Your task to perform on an android device: Open the Play Movies app and select the watchlist tab. Image 0: 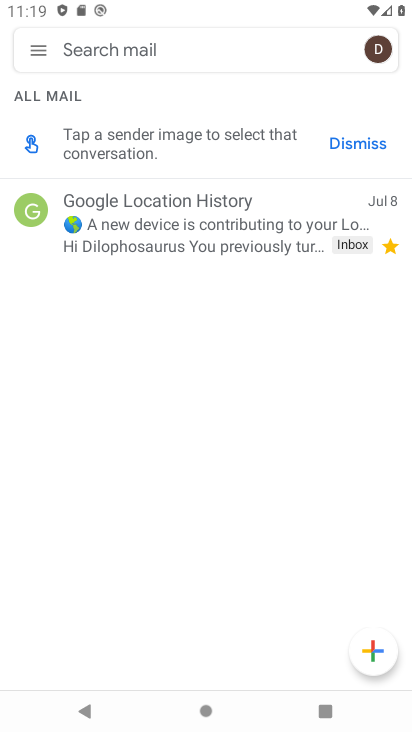
Step 0: press home button
Your task to perform on an android device: Open the Play Movies app and select the watchlist tab. Image 1: 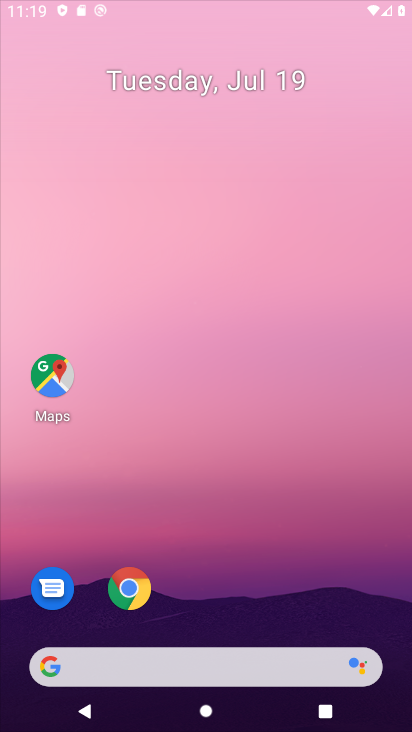
Step 1: drag from (394, 661) to (287, 28)
Your task to perform on an android device: Open the Play Movies app and select the watchlist tab. Image 2: 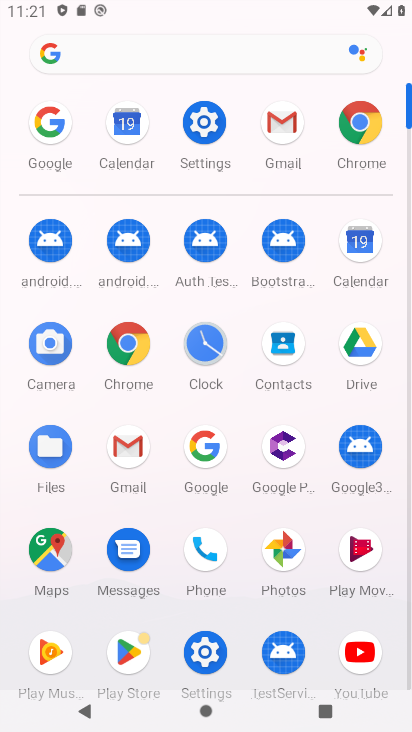
Step 2: click (372, 543)
Your task to perform on an android device: Open the Play Movies app and select the watchlist tab. Image 3: 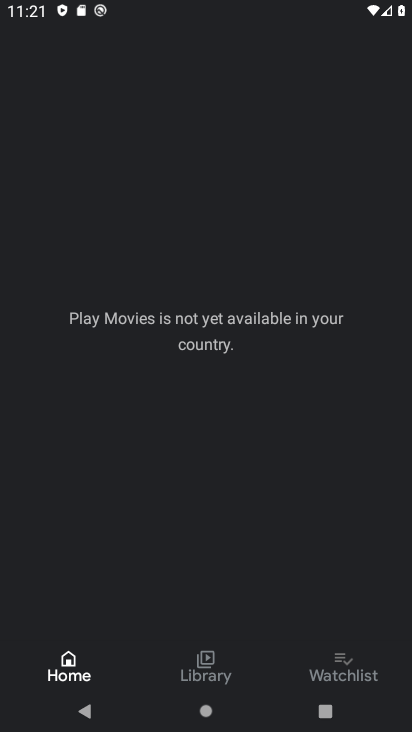
Step 3: click (341, 653)
Your task to perform on an android device: Open the Play Movies app and select the watchlist tab. Image 4: 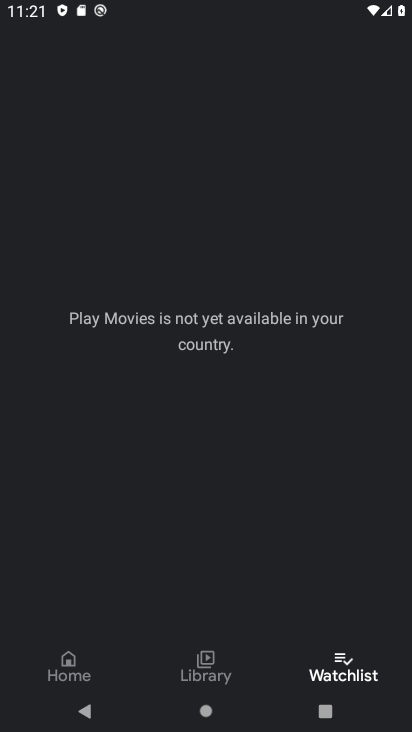
Step 4: task complete